Your task to perform on an android device: Open Chrome and go to the settings page Image 0: 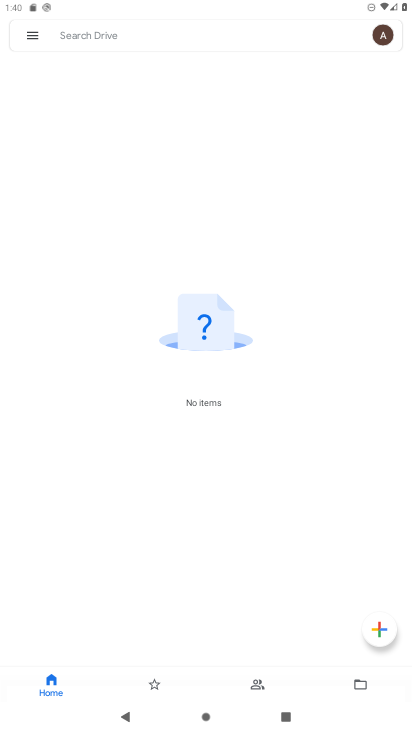
Step 0: press home button
Your task to perform on an android device: Open Chrome and go to the settings page Image 1: 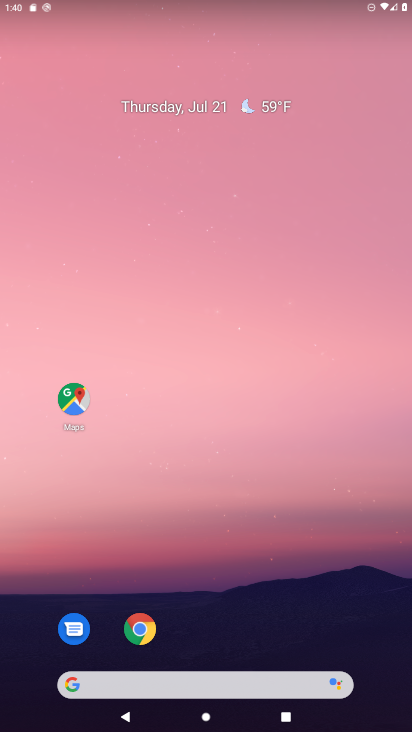
Step 1: click (139, 630)
Your task to perform on an android device: Open Chrome and go to the settings page Image 2: 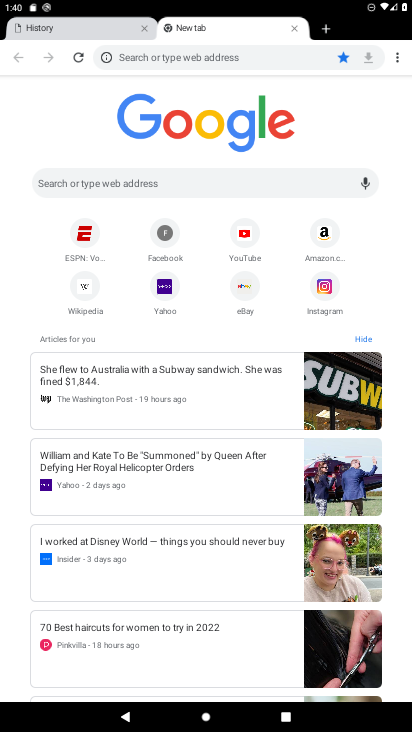
Step 2: click (395, 64)
Your task to perform on an android device: Open Chrome and go to the settings page Image 3: 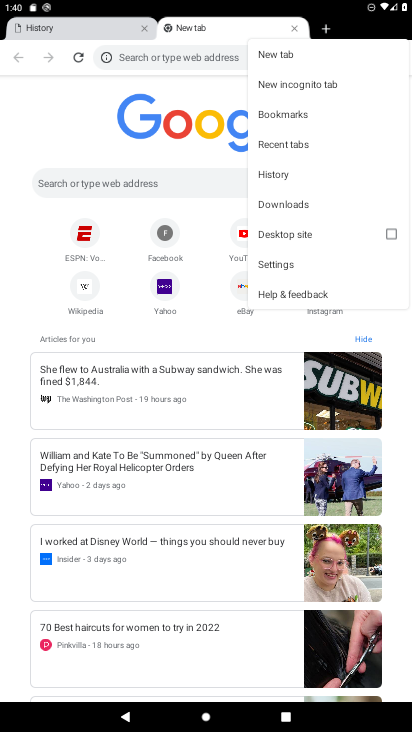
Step 3: click (282, 255)
Your task to perform on an android device: Open Chrome and go to the settings page Image 4: 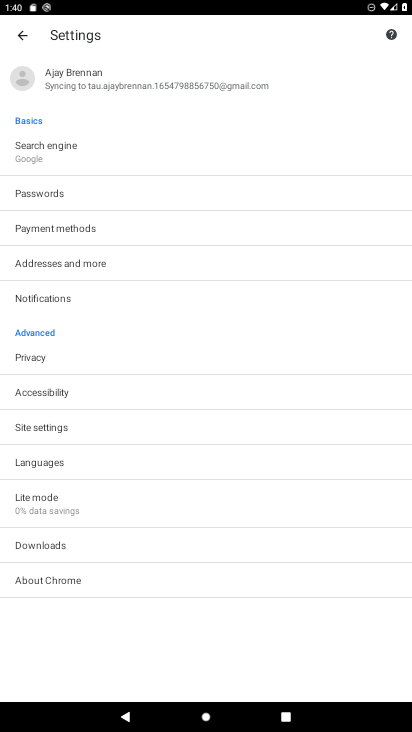
Step 4: task complete